Your task to perform on an android device: check battery use Image 0: 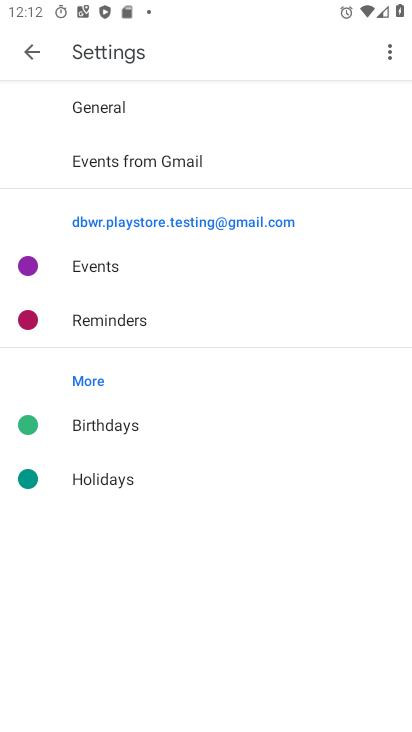
Step 0: press home button
Your task to perform on an android device: check battery use Image 1: 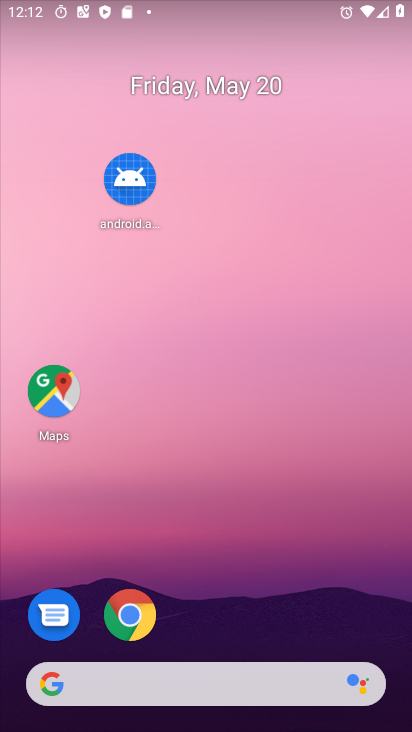
Step 1: drag from (345, 584) to (217, 27)
Your task to perform on an android device: check battery use Image 2: 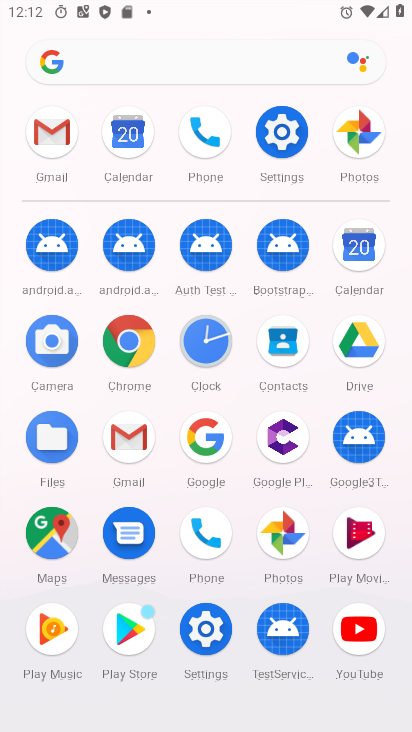
Step 2: click (282, 148)
Your task to perform on an android device: check battery use Image 3: 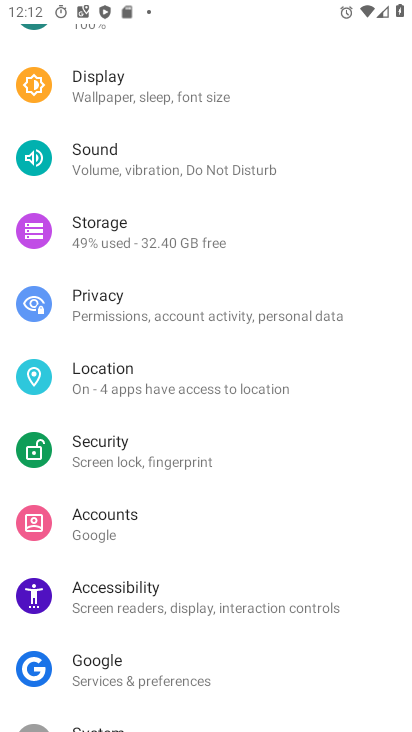
Step 3: drag from (180, 239) to (294, 625)
Your task to perform on an android device: check battery use Image 4: 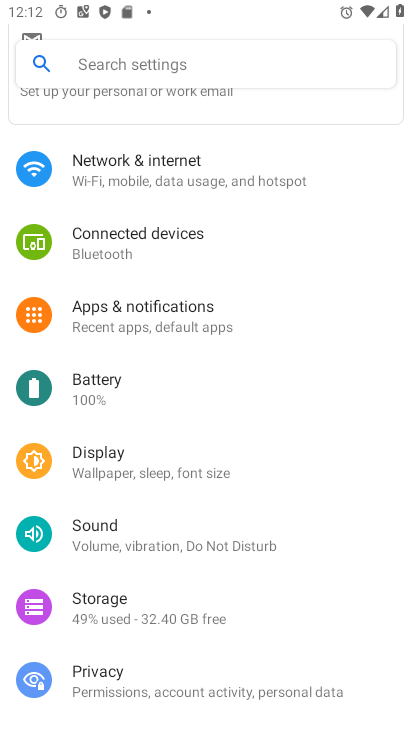
Step 4: click (138, 395)
Your task to perform on an android device: check battery use Image 5: 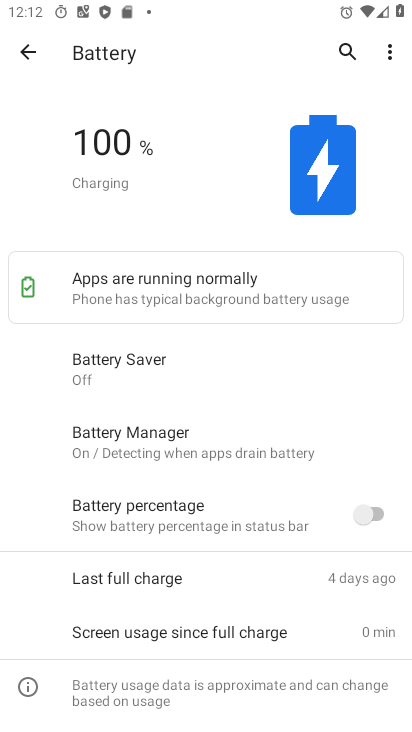
Step 5: click (390, 55)
Your task to perform on an android device: check battery use Image 6: 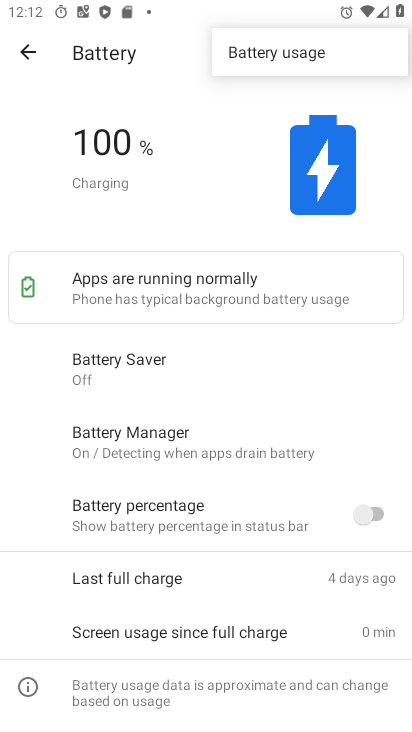
Step 6: click (278, 57)
Your task to perform on an android device: check battery use Image 7: 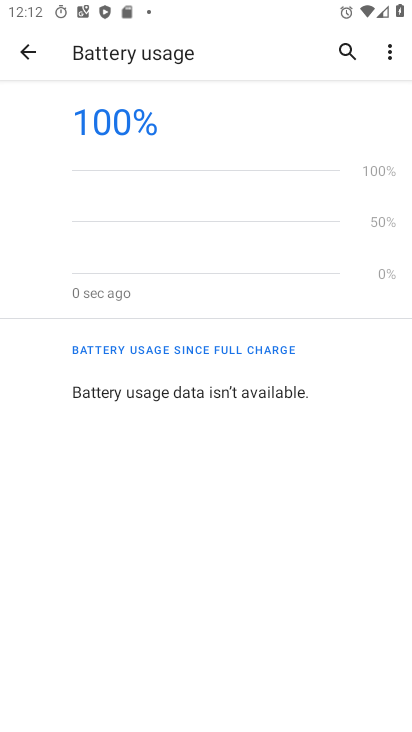
Step 7: task complete